Your task to perform on an android device: open app "Facebook Lite" Image 0: 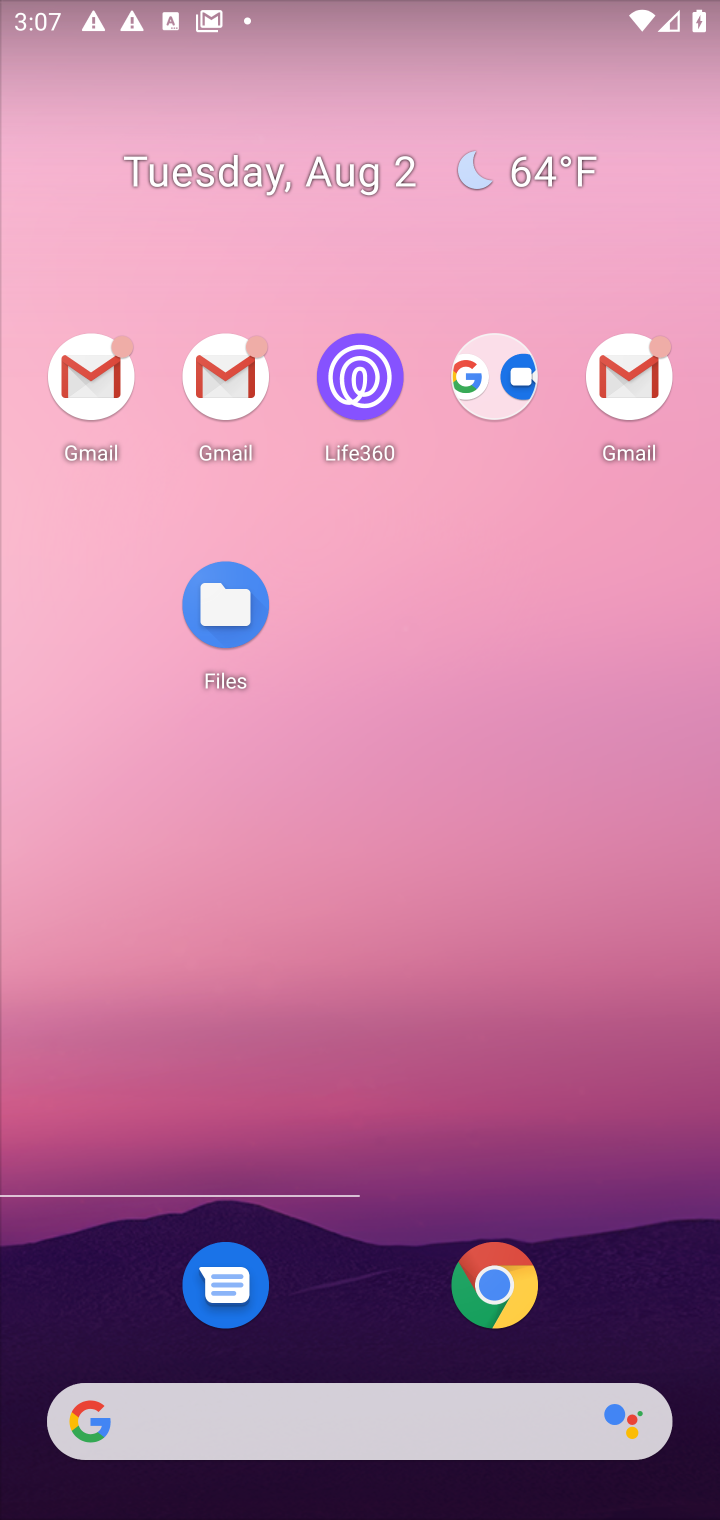
Step 0: drag from (610, 921) to (622, 125)
Your task to perform on an android device: open app "Facebook Lite" Image 1: 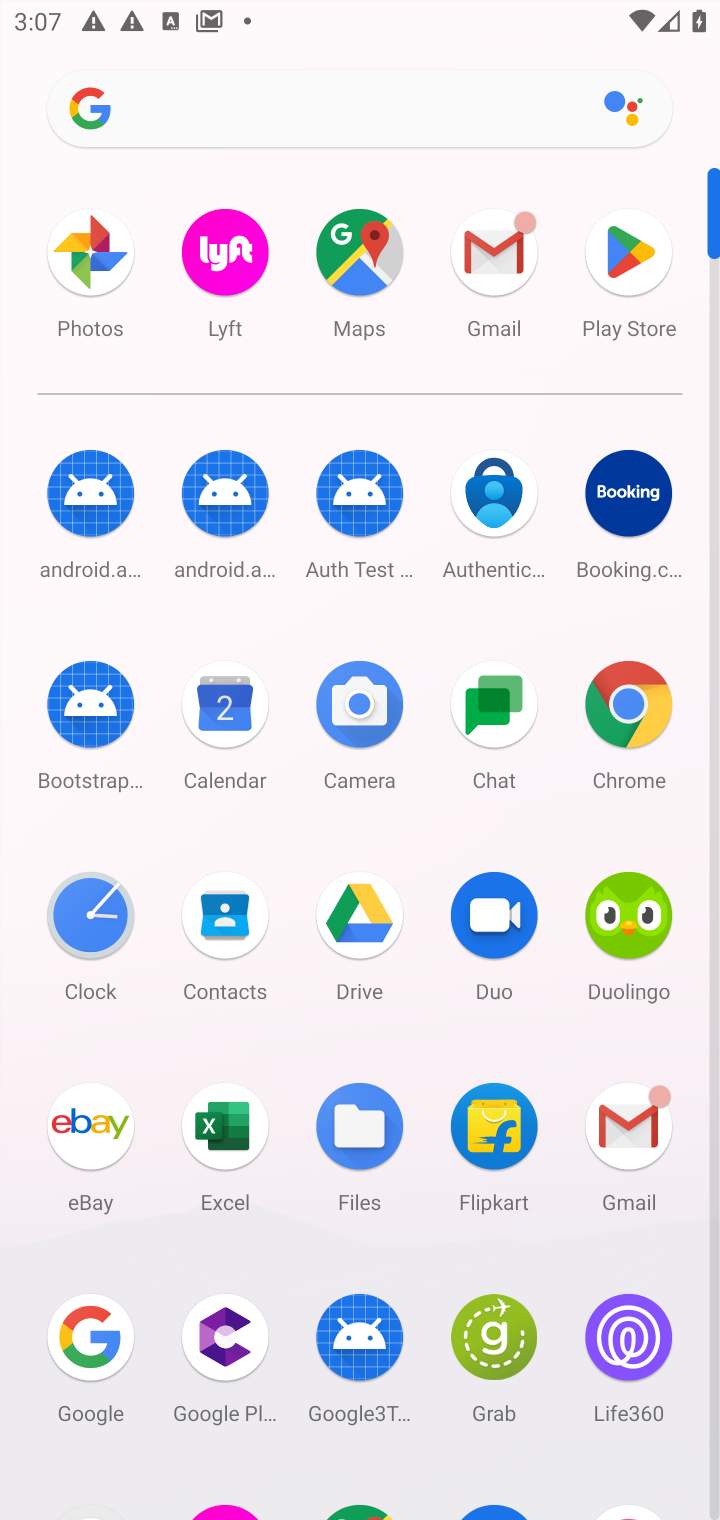
Step 1: drag from (421, 1445) to (467, 643)
Your task to perform on an android device: open app "Facebook Lite" Image 2: 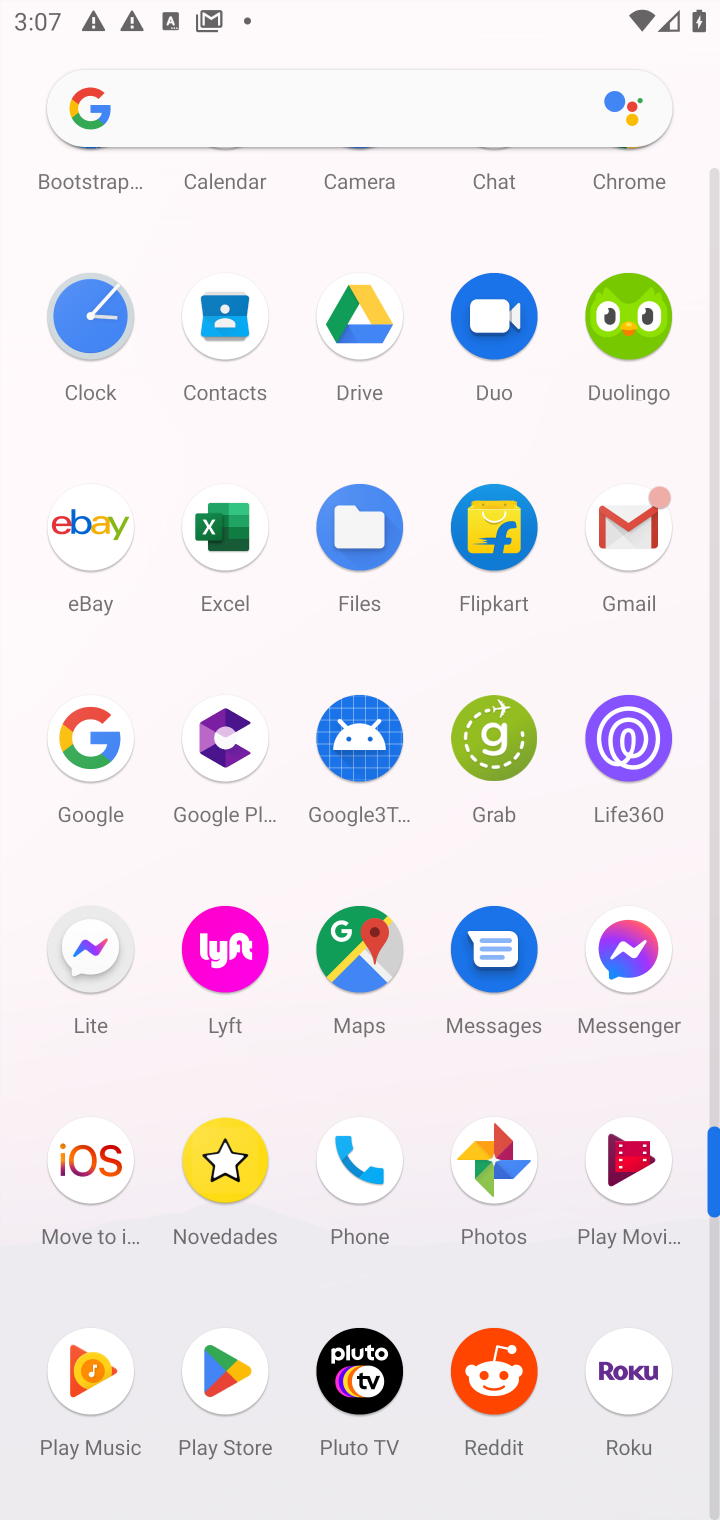
Step 2: click (231, 1375)
Your task to perform on an android device: open app "Facebook Lite" Image 3: 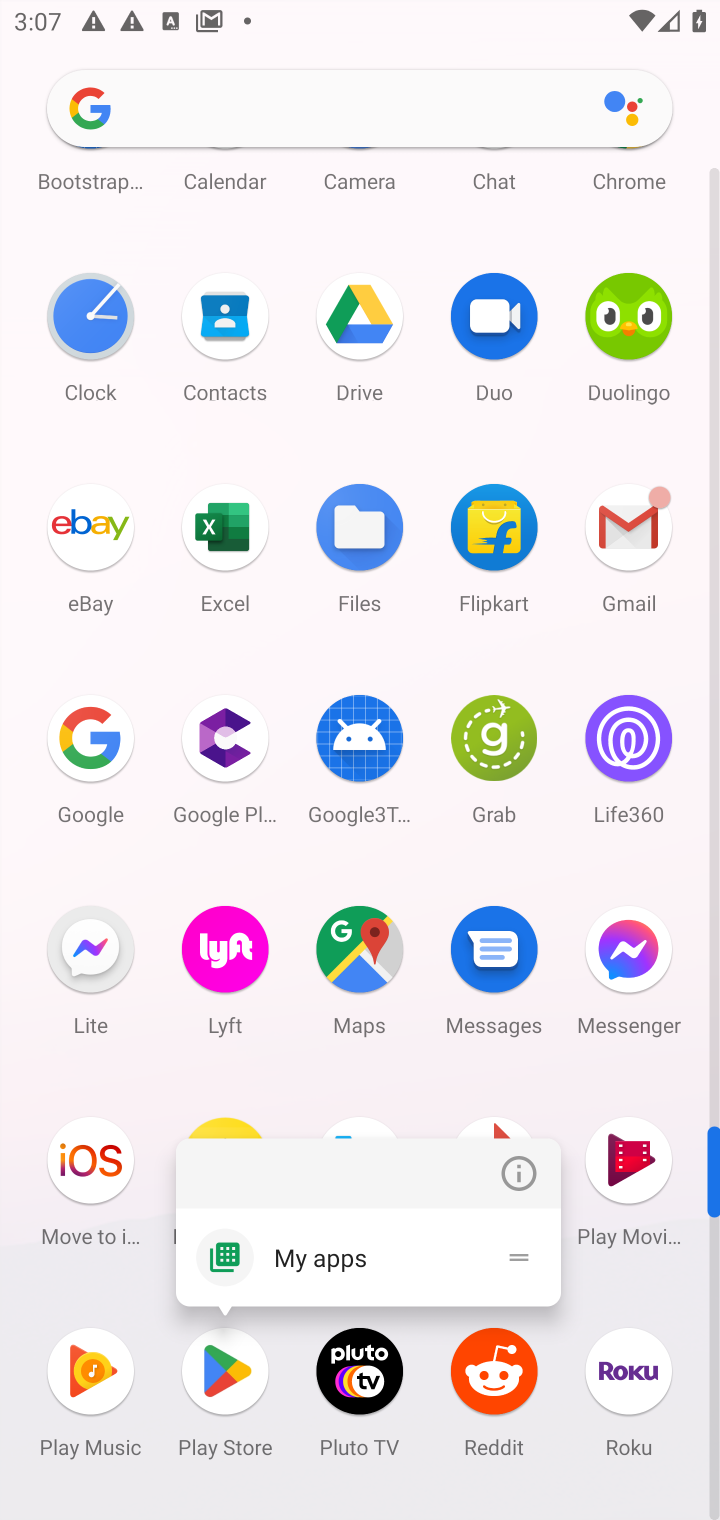
Step 3: click (222, 1373)
Your task to perform on an android device: open app "Facebook Lite" Image 4: 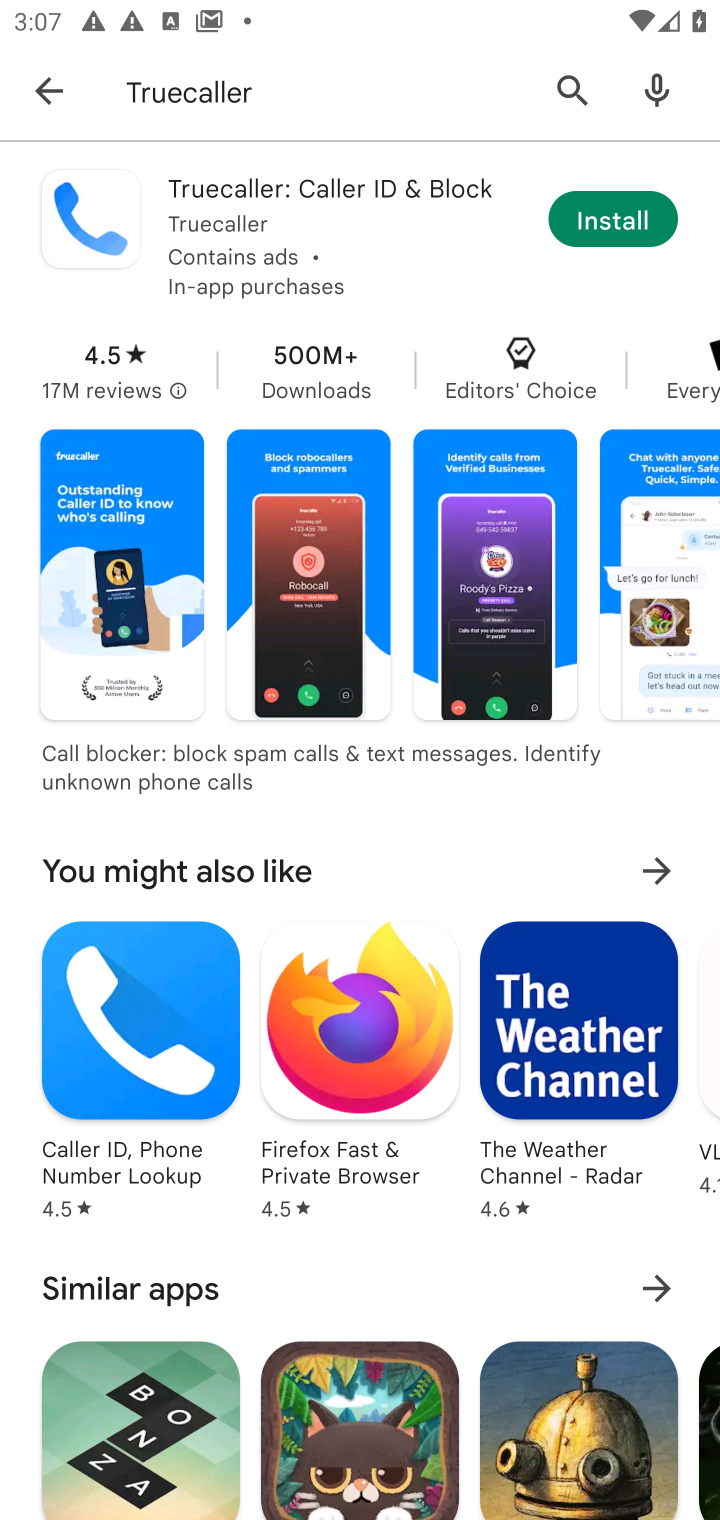
Step 4: click (398, 91)
Your task to perform on an android device: open app "Facebook Lite" Image 5: 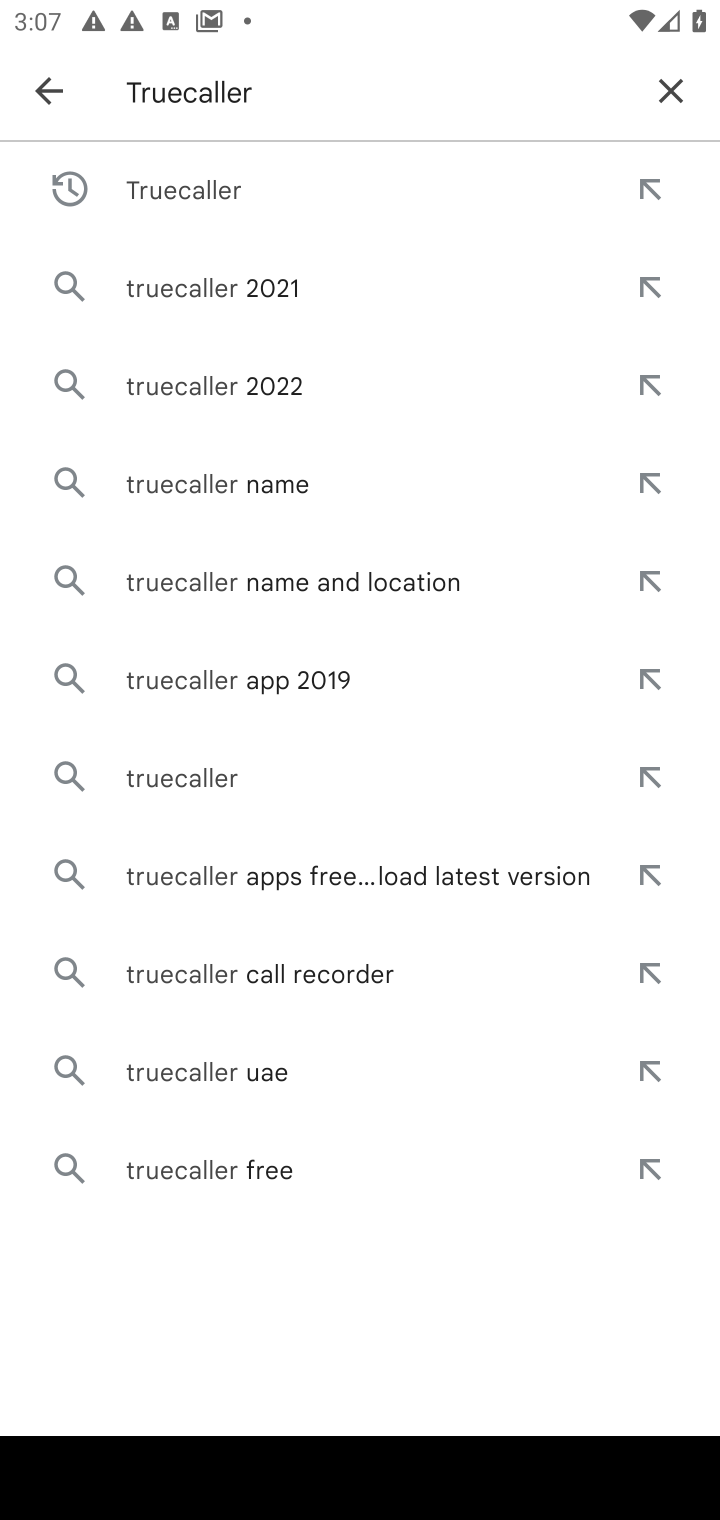
Step 5: click (677, 102)
Your task to perform on an android device: open app "Facebook Lite" Image 6: 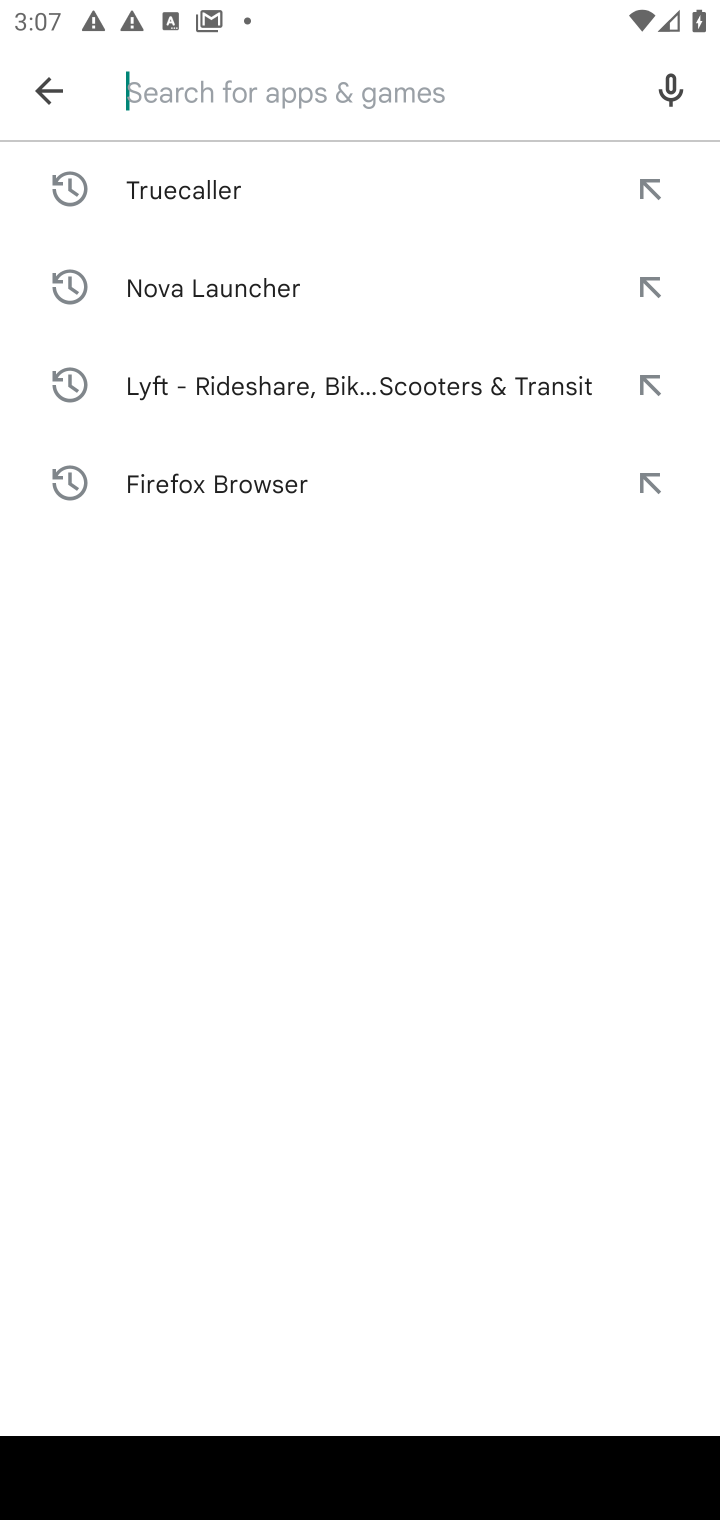
Step 6: type "Facebook Lite"
Your task to perform on an android device: open app "Facebook Lite" Image 7: 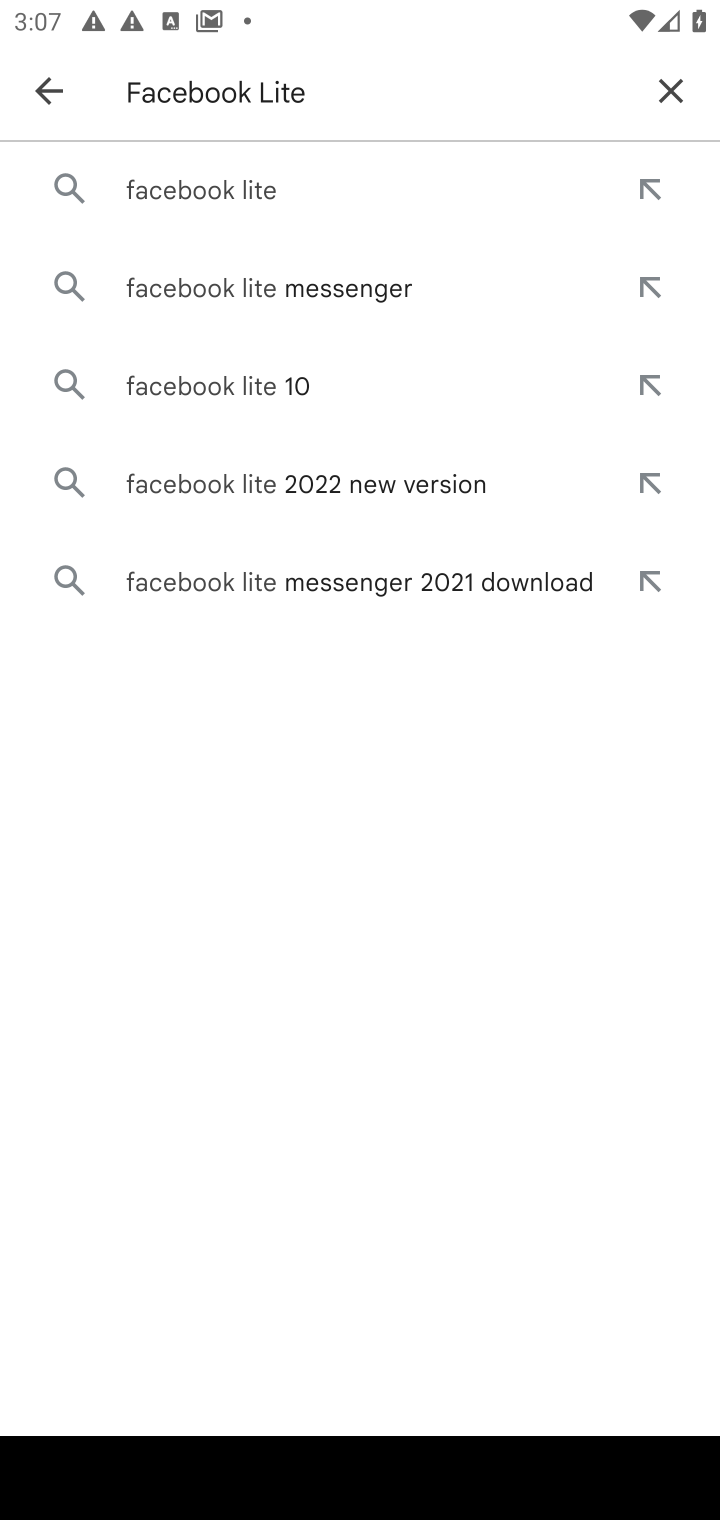
Step 7: press enter
Your task to perform on an android device: open app "Facebook Lite" Image 8: 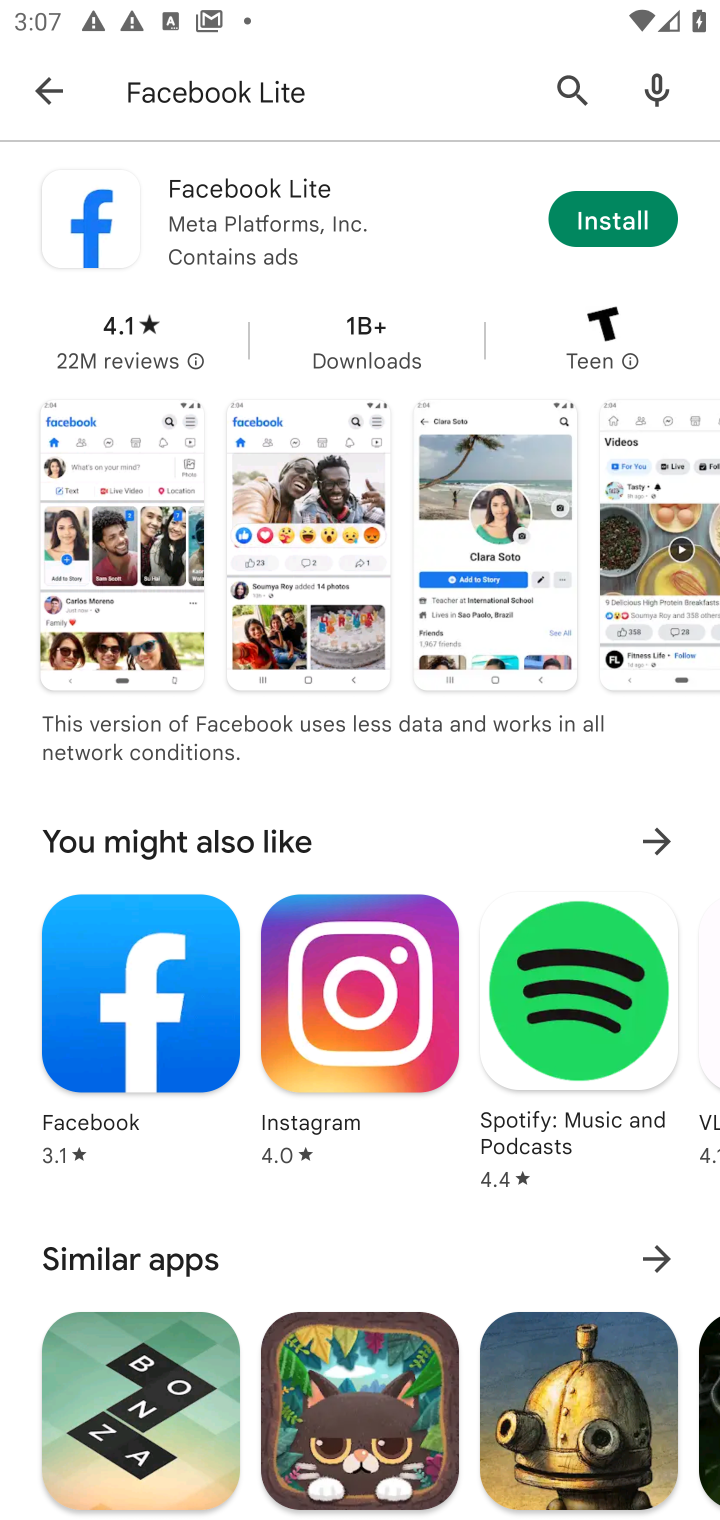
Step 8: task complete